Your task to perform on an android device: Go to Android settings Image 0: 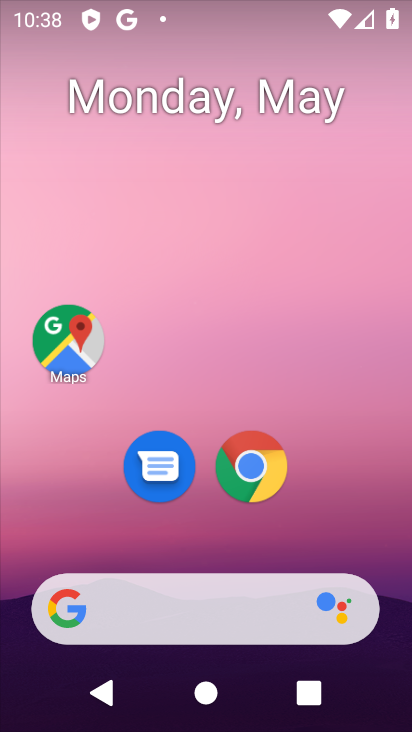
Step 0: drag from (334, 509) to (278, 83)
Your task to perform on an android device: Go to Android settings Image 1: 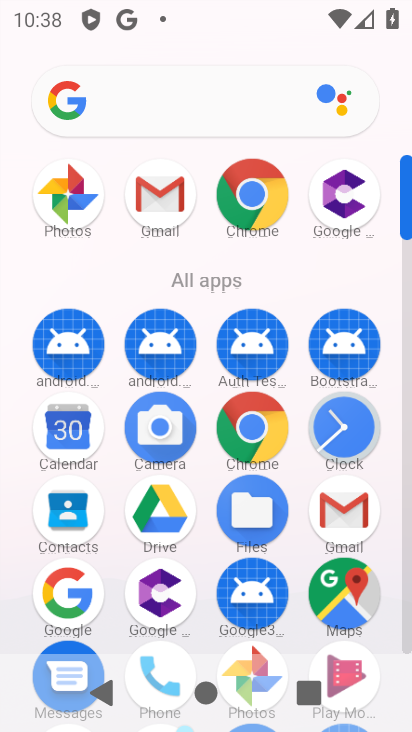
Step 1: drag from (199, 524) to (192, 161)
Your task to perform on an android device: Go to Android settings Image 2: 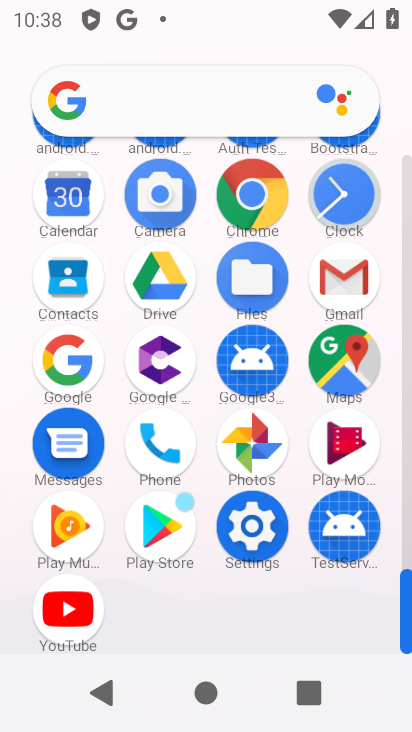
Step 2: click (251, 507)
Your task to perform on an android device: Go to Android settings Image 3: 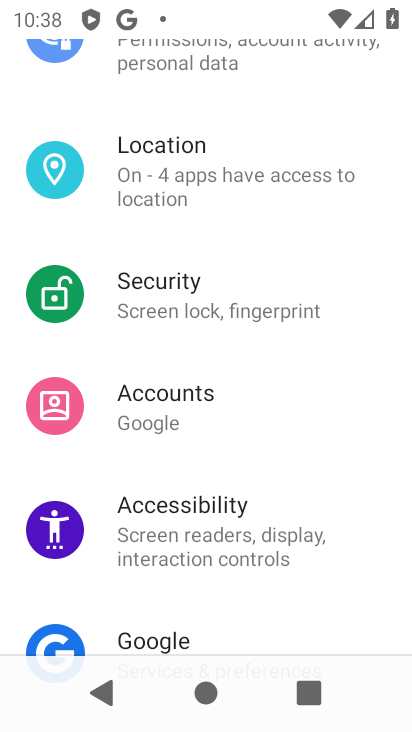
Step 3: task complete